Your task to perform on an android device: Go to Google Image 0: 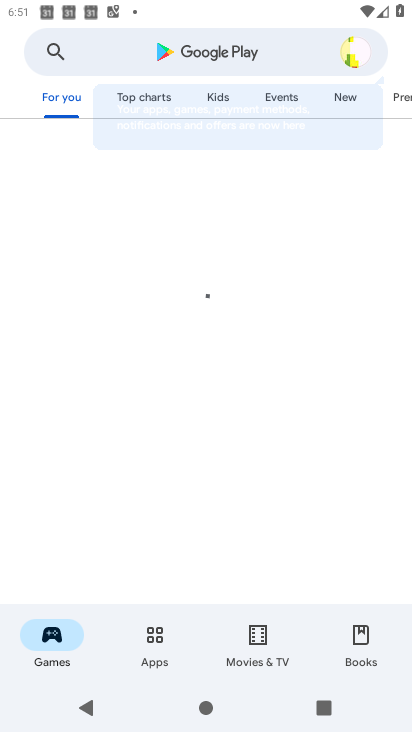
Step 0: press home button
Your task to perform on an android device: Go to Google Image 1: 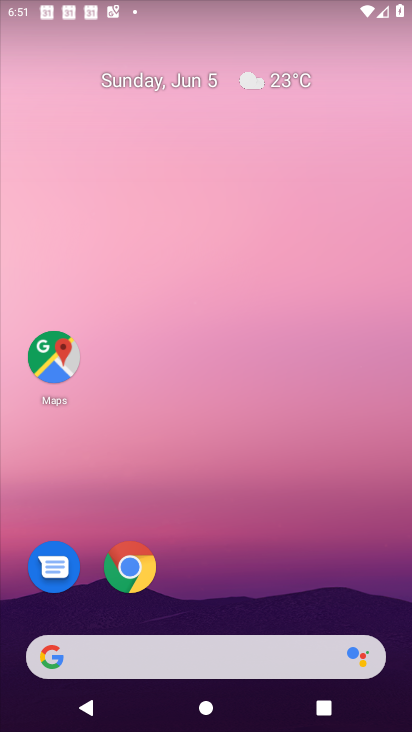
Step 1: drag from (397, 634) to (306, 187)
Your task to perform on an android device: Go to Google Image 2: 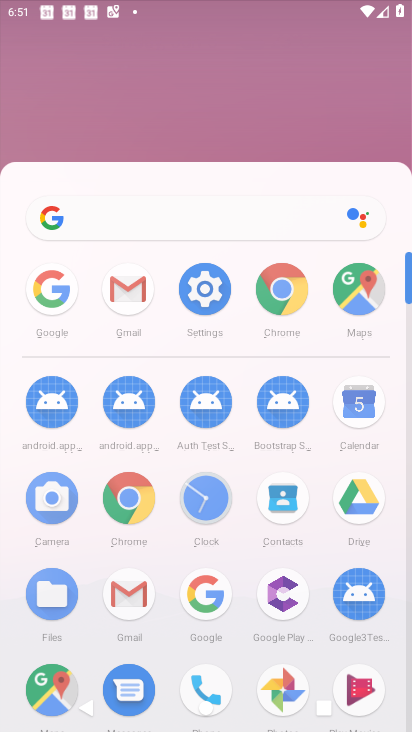
Step 2: click (224, 8)
Your task to perform on an android device: Go to Google Image 3: 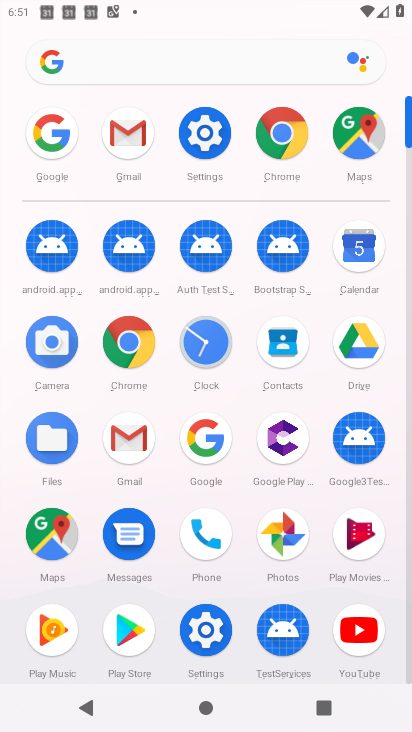
Step 3: click (219, 429)
Your task to perform on an android device: Go to Google Image 4: 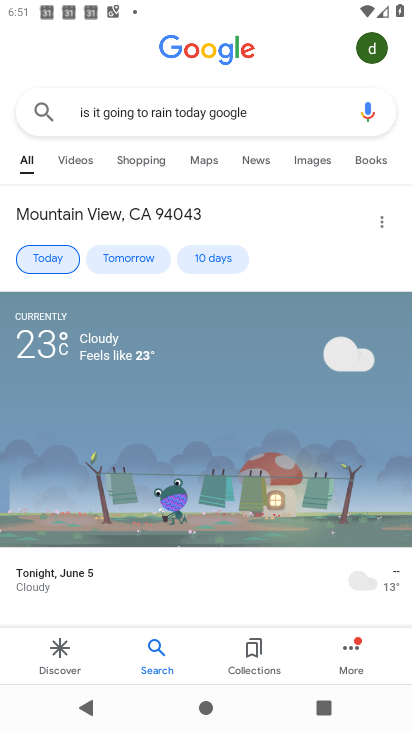
Step 4: task complete